Your task to perform on an android device: turn vacation reply on in the gmail app Image 0: 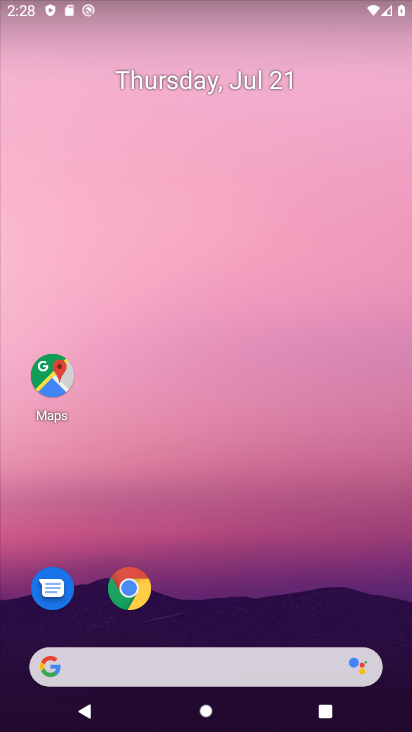
Step 0: drag from (267, 571) to (218, 180)
Your task to perform on an android device: turn vacation reply on in the gmail app Image 1: 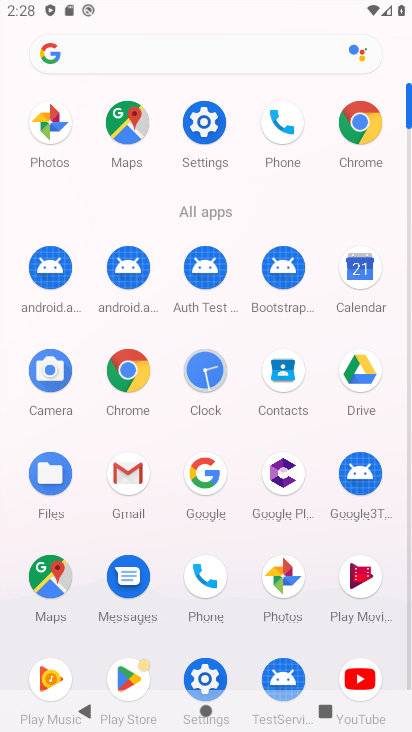
Step 1: click (131, 469)
Your task to perform on an android device: turn vacation reply on in the gmail app Image 2: 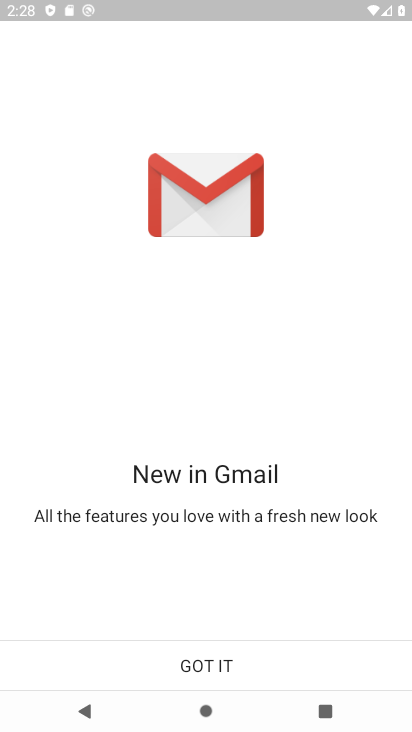
Step 2: click (213, 659)
Your task to perform on an android device: turn vacation reply on in the gmail app Image 3: 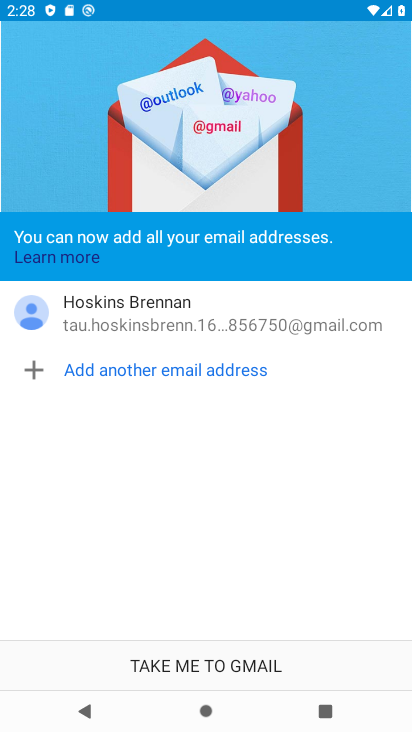
Step 3: click (213, 659)
Your task to perform on an android device: turn vacation reply on in the gmail app Image 4: 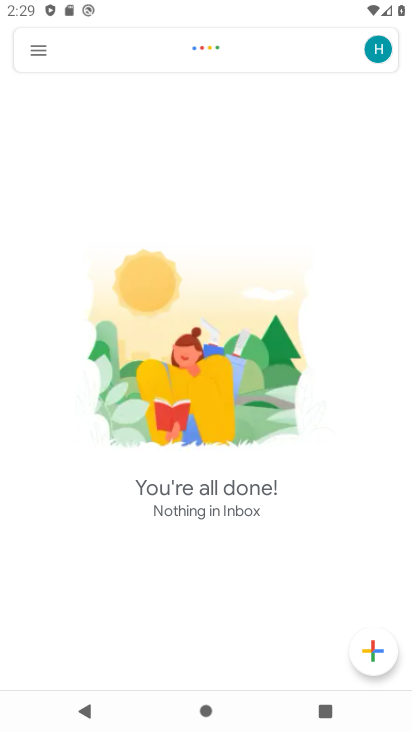
Step 4: click (36, 54)
Your task to perform on an android device: turn vacation reply on in the gmail app Image 5: 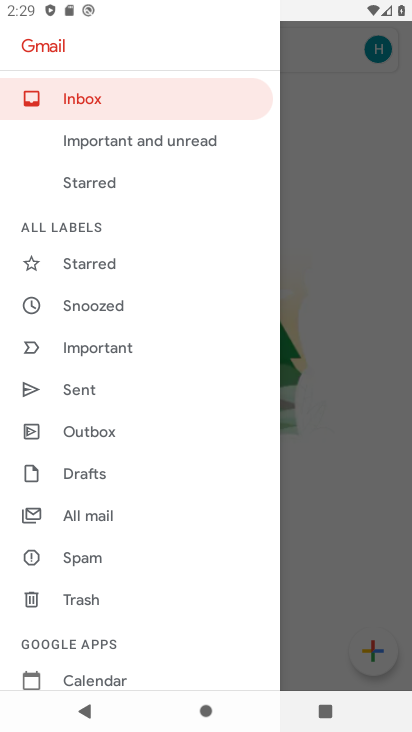
Step 5: drag from (183, 584) to (169, 122)
Your task to perform on an android device: turn vacation reply on in the gmail app Image 6: 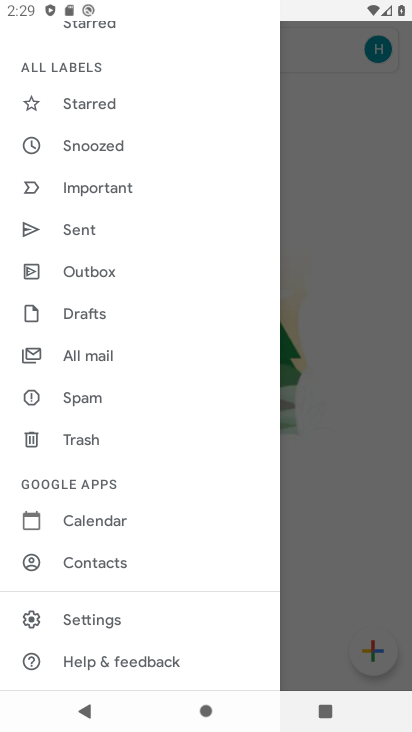
Step 6: click (87, 618)
Your task to perform on an android device: turn vacation reply on in the gmail app Image 7: 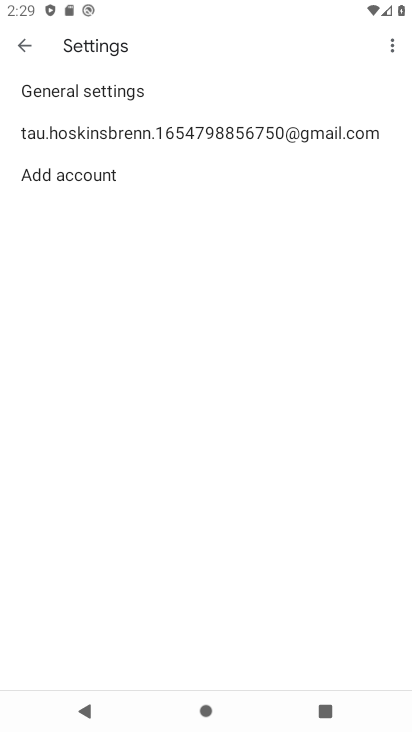
Step 7: click (85, 131)
Your task to perform on an android device: turn vacation reply on in the gmail app Image 8: 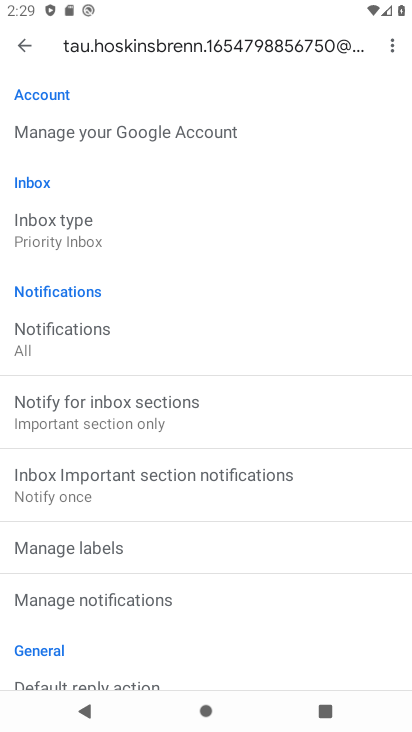
Step 8: drag from (233, 628) to (231, 206)
Your task to perform on an android device: turn vacation reply on in the gmail app Image 9: 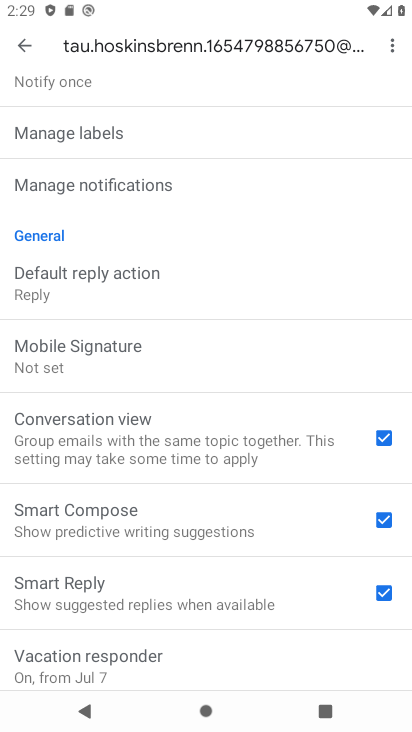
Step 9: click (139, 652)
Your task to perform on an android device: turn vacation reply on in the gmail app Image 10: 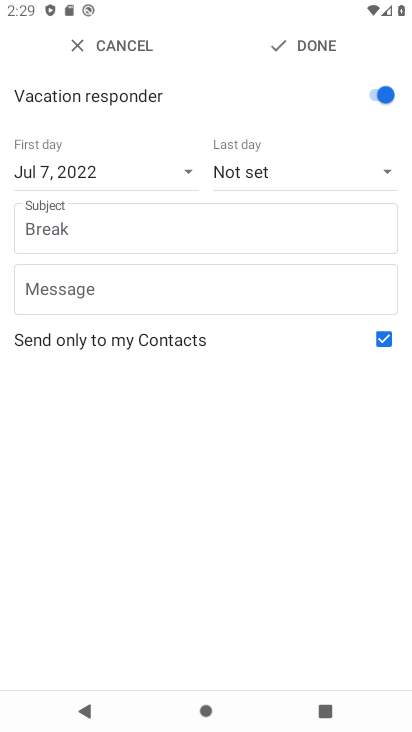
Step 10: click (287, 46)
Your task to perform on an android device: turn vacation reply on in the gmail app Image 11: 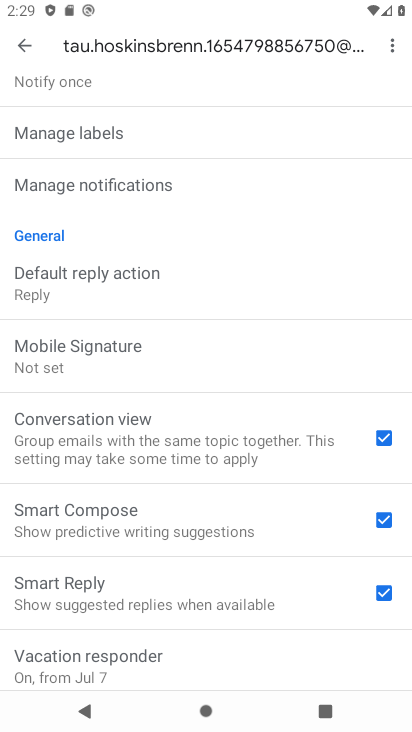
Step 11: task complete